Your task to perform on an android device: Go to accessibility settings Image 0: 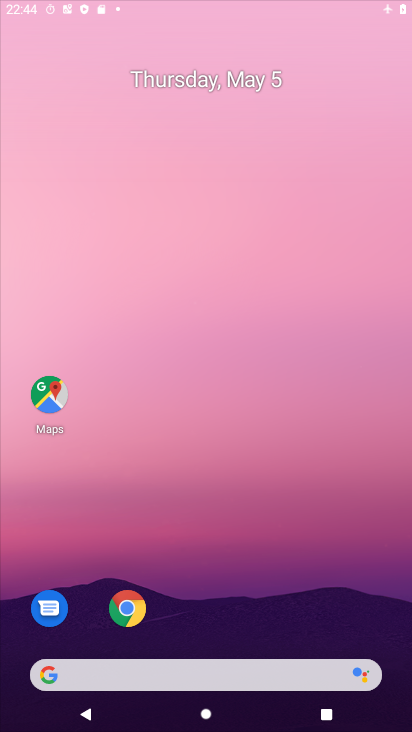
Step 0: drag from (212, 661) to (193, 1)
Your task to perform on an android device: Go to accessibility settings Image 1: 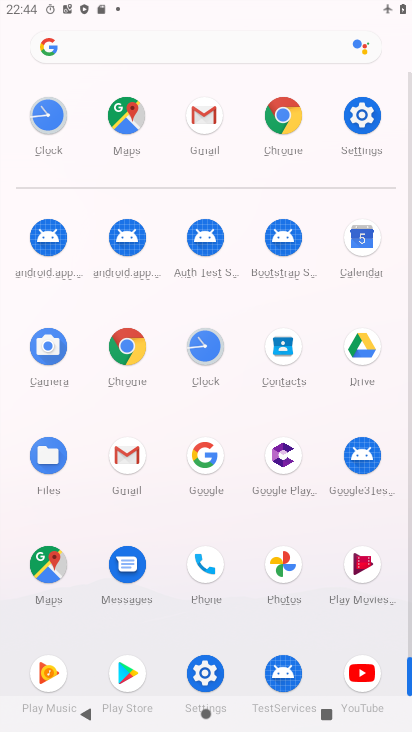
Step 1: click (40, 566)
Your task to perform on an android device: Go to accessibility settings Image 2: 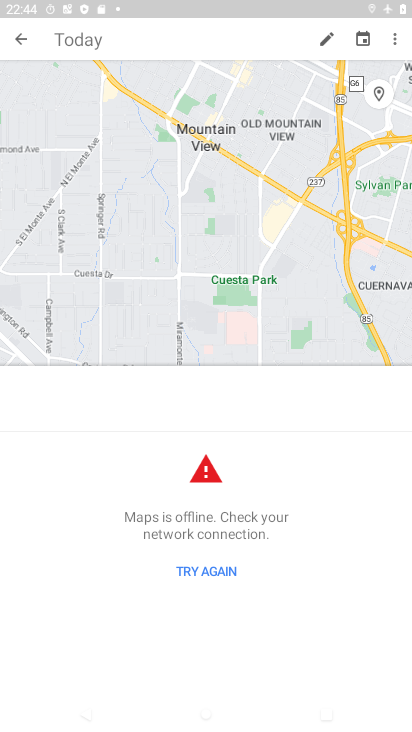
Step 2: press home button
Your task to perform on an android device: Go to accessibility settings Image 3: 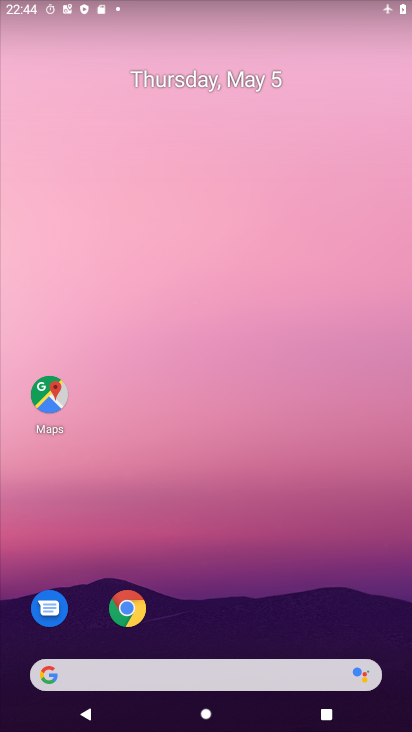
Step 3: drag from (235, 656) to (234, 1)
Your task to perform on an android device: Go to accessibility settings Image 4: 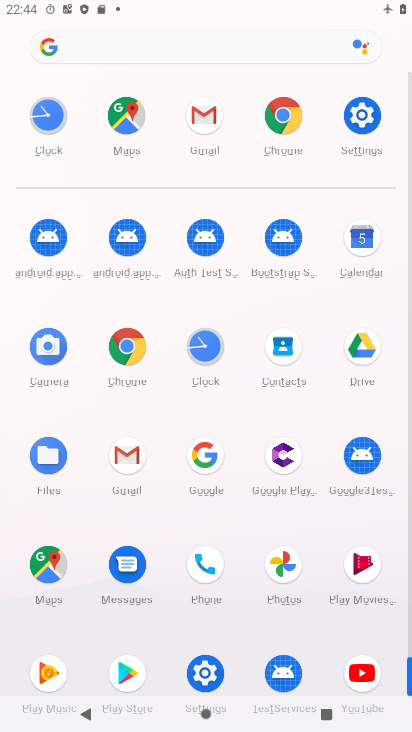
Step 4: click (362, 125)
Your task to perform on an android device: Go to accessibility settings Image 5: 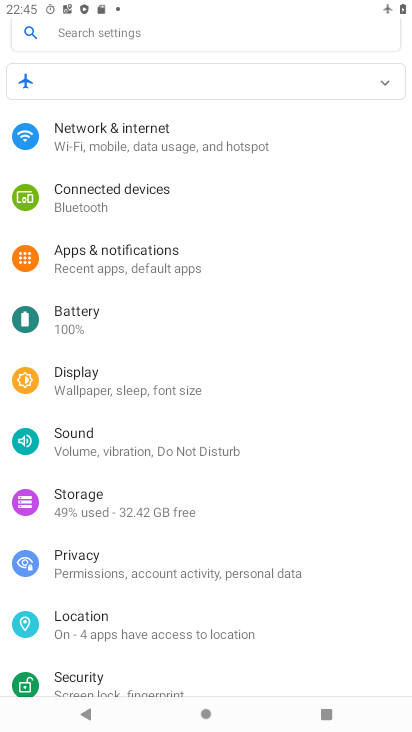
Step 5: drag from (257, 681) to (315, 88)
Your task to perform on an android device: Go to accessibility settings Image 6: 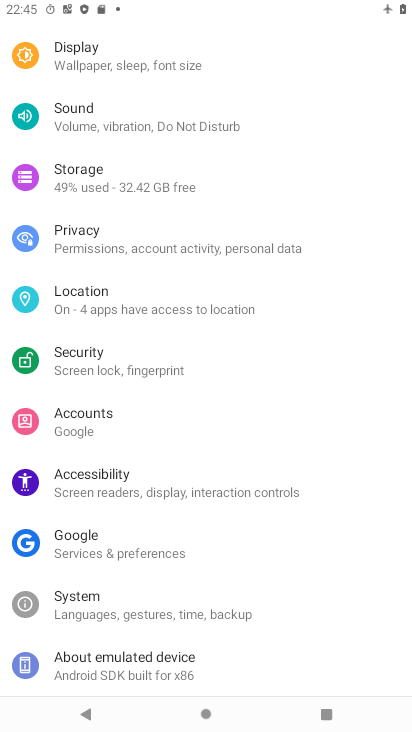
Step 6: click (127, 492)
Your task to perform on an android device: Go to accessibility settings Image 7: 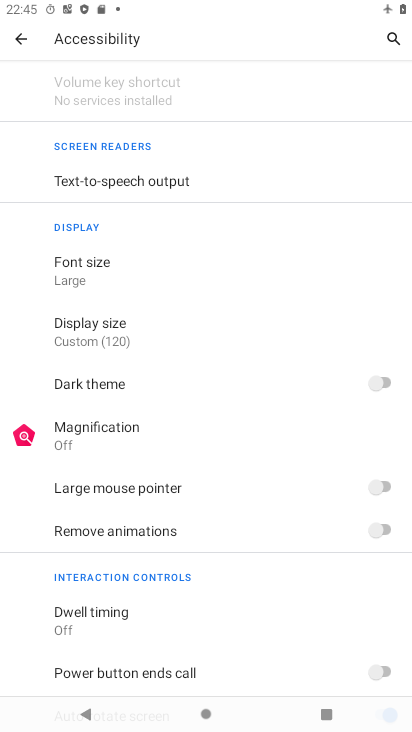
Step 7: task complete